Your task to perform on an android device: refresh tabs in the chrome app Image 0: 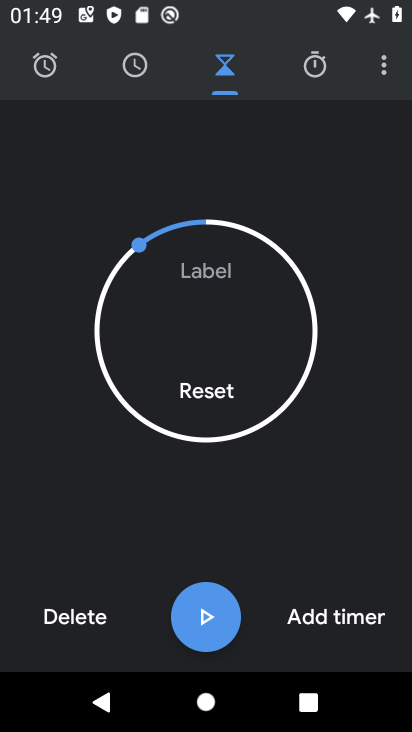
Step 0: press home button
Your task to perform on an android device: refresh tabs in the chrome app Image 1: 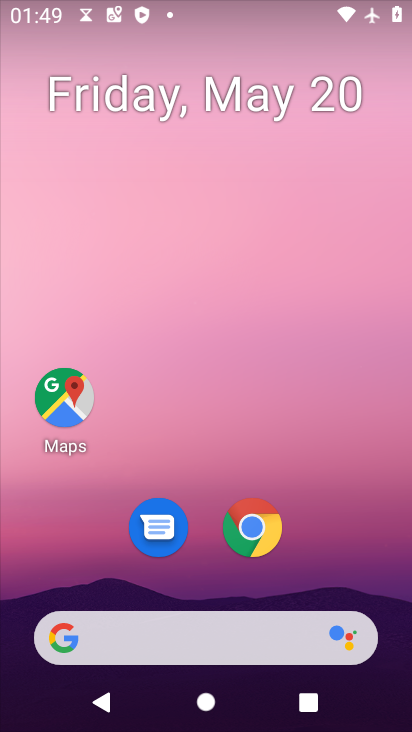
Step 1: click (255, 532)
Your task to perform on an android device: refresh tabs in the chrome app Image 2: 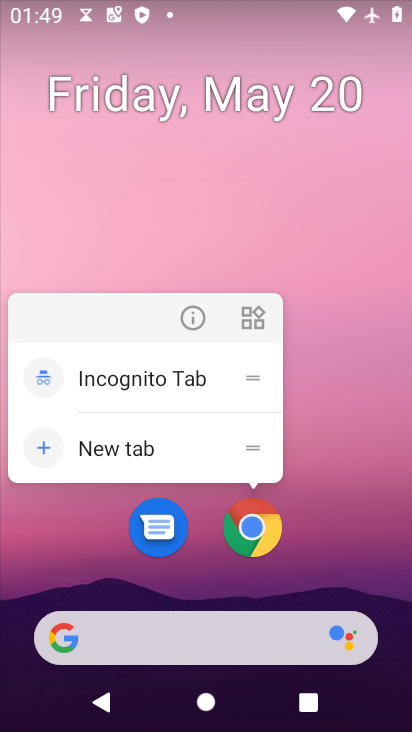
Step 2: click (253, 539)
Your task to perform on an android device: refresh tabs in the chrome app Image 3: 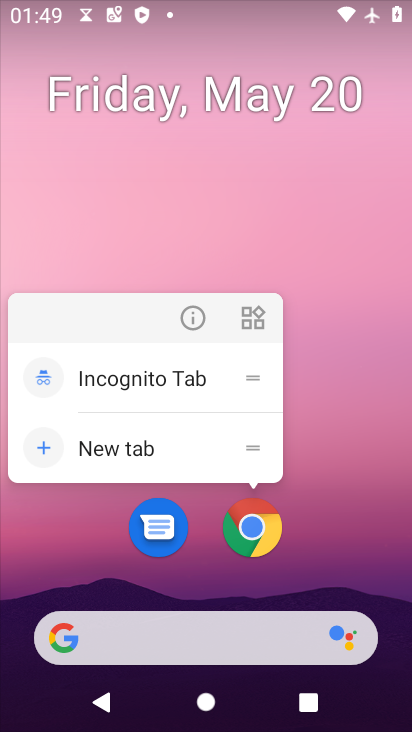
Step 3: click (258, 539)
Your task to perform on an android device: refresh tabs in the chrome app Image 4: 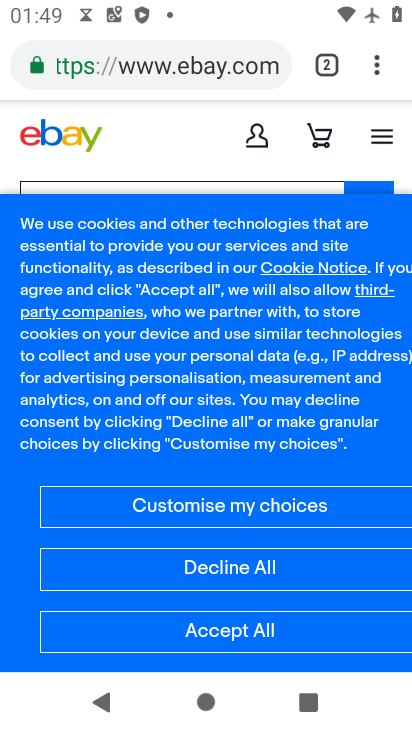
Step 4: click (371, 85)
Your task to perform on an android device: refresh tabs in the chrome app Image 5: 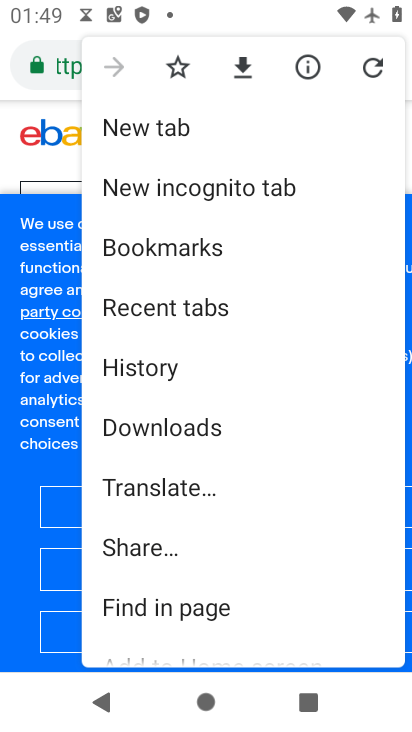
Step 5: click (366, 70)
Your task to perform on an android device: refresh tabs in the chrome app Image 6: 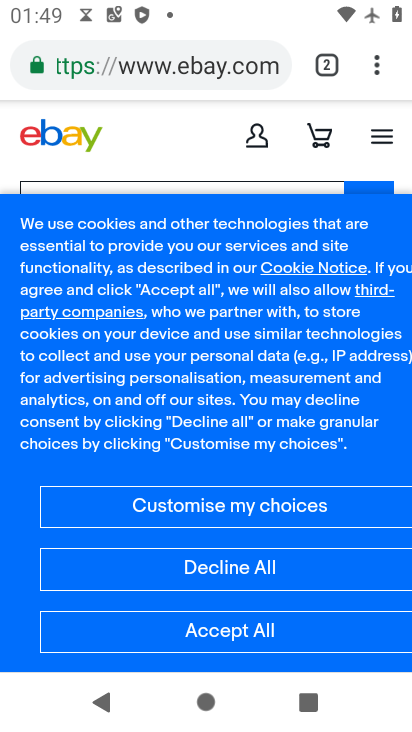
Step 6: task complete